Your task to perform on an android device: Open Wikipedia Image 0: 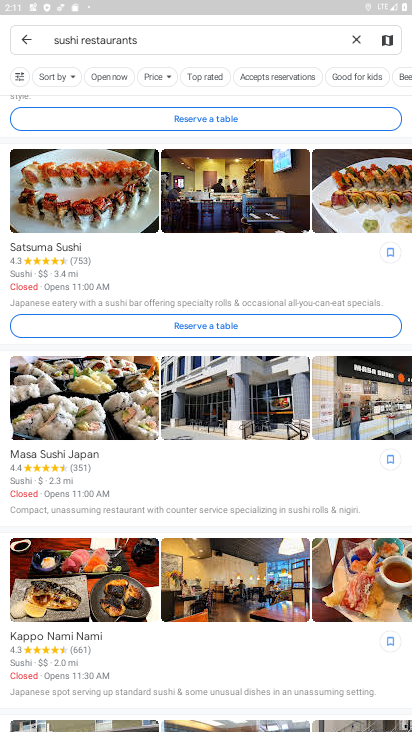
Step 0: press home button
Your task to perform on an android device: Open Wikipedia Image 1: 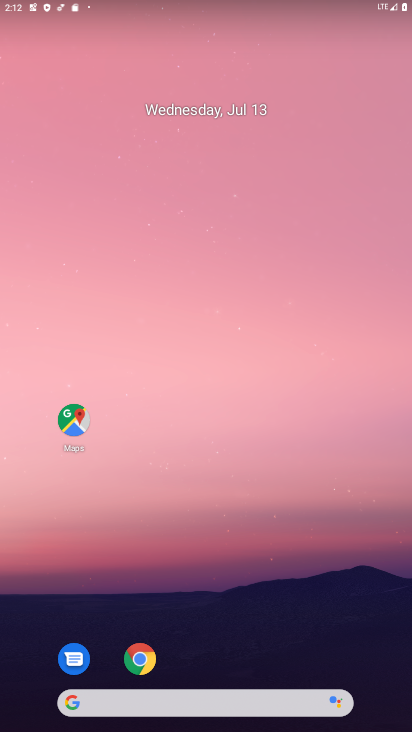
Step 1: click (143, 663)
Your task to perform on an android device: Open Wikipedia Image 2: 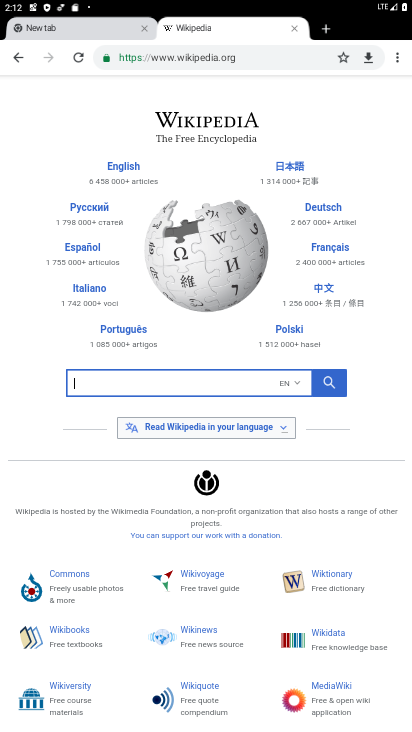
Step 2: task complete